Your task to perform on an android device: Go to privacy settings Image 0: 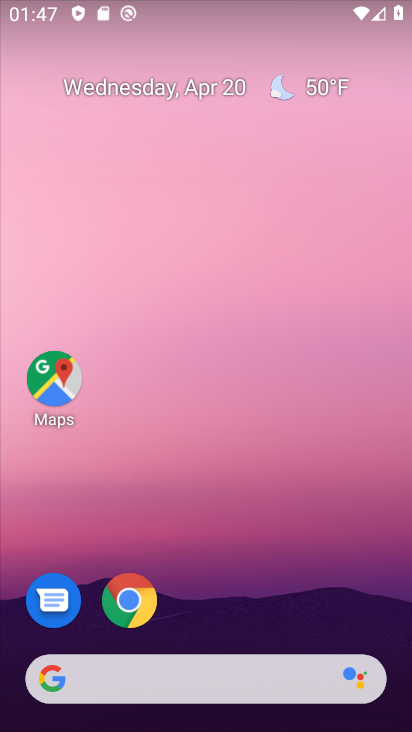
Step 0: click (119, 604)
Your task to perform on an android device: Go to privacy settings Image 1: 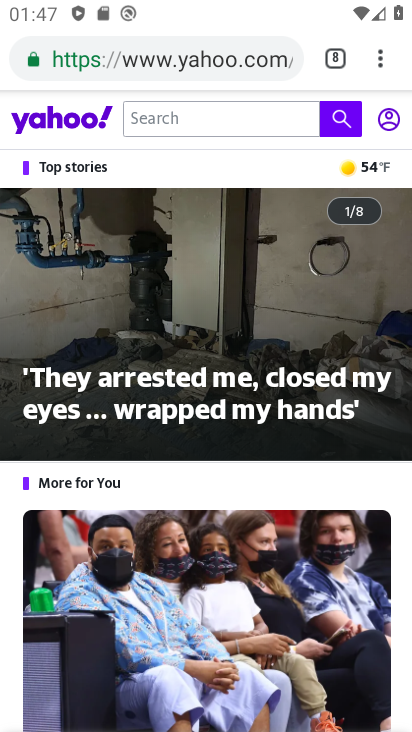
Step 1: click (383, 51)
Your task to perform on an android device: Go to privacy settings Image 2: 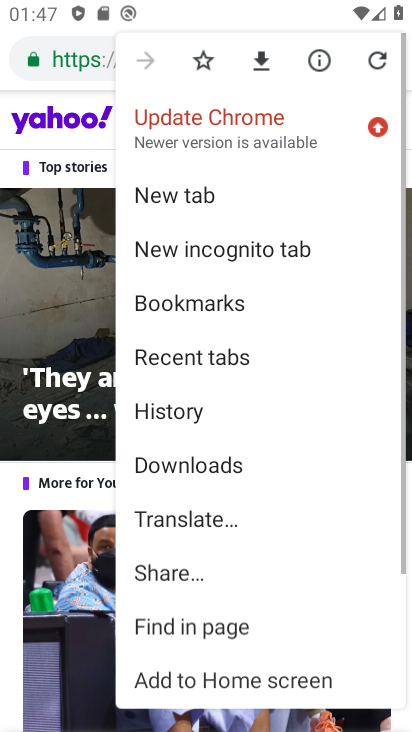
Step 2: drag from (384, 59) to (194, 640)
Your task to perform on an android device: Go to privacy settings Image 3: 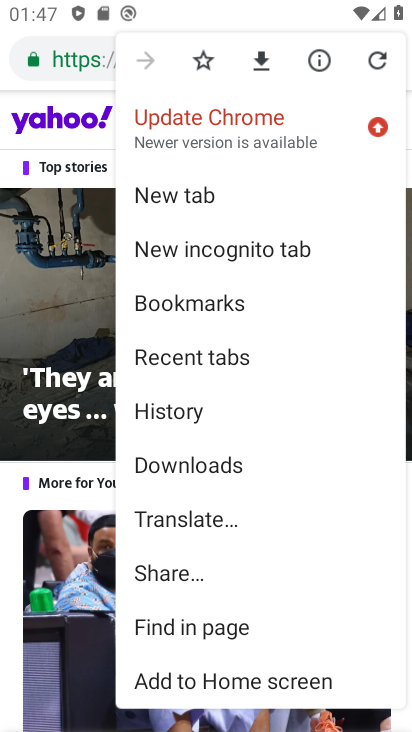
Step 3: drag from (195, 562) to (220, 41)
Your task to perform on an android device: Go to privacy settings Image 4: 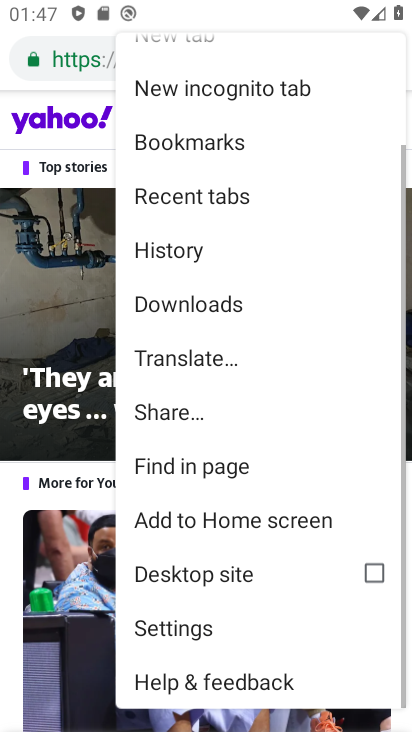
Step 4: click (207, 634)
Your task to perform on an android device: Go to privacy settings Image 5: 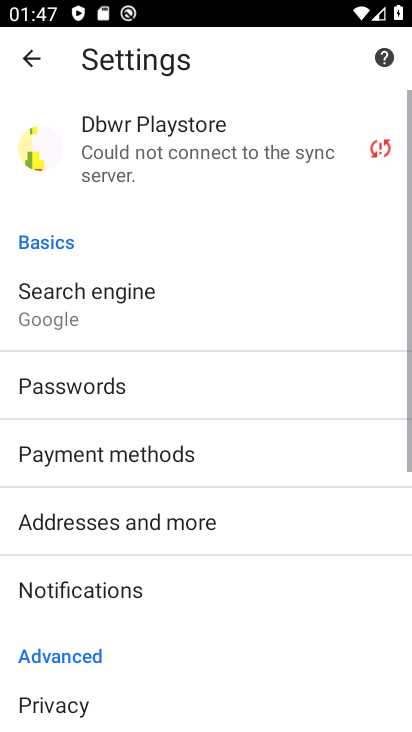
Step 5: drag from (201, 619) to (218, 251)
Your task to perform on an android device: Go to privacy settings Image 6: 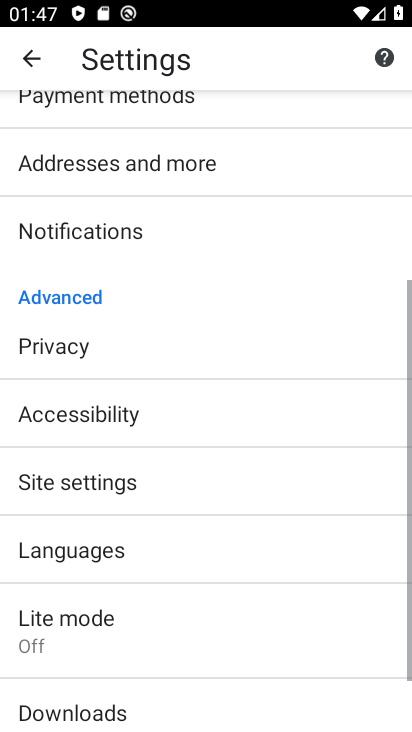
Step 6: click (121, 334)
Your task to perform on an android device: Go to privacy settings Image 7: 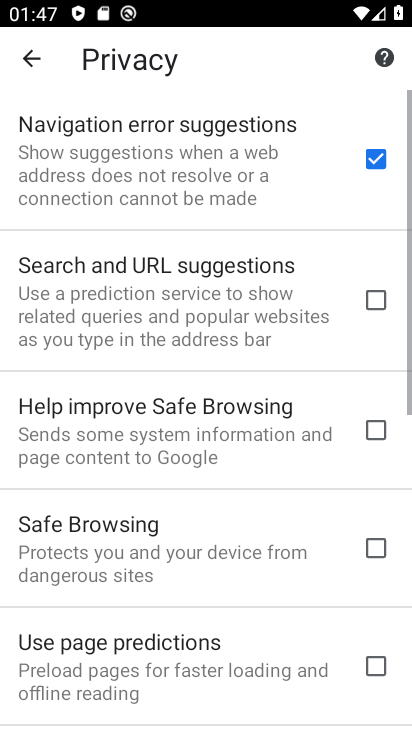
Step 7: task complete